Your task to perform on an android device: open sync settings in chrome Image 0: 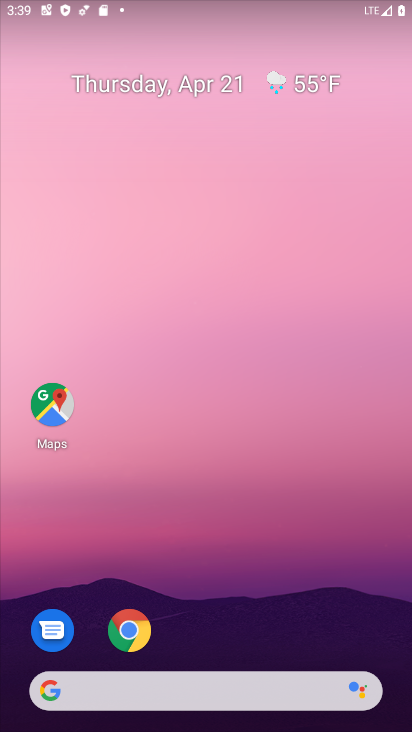
Step 0: click (118, 629)
Your task to perform on an android device: open sync settings in chrome Image 1: 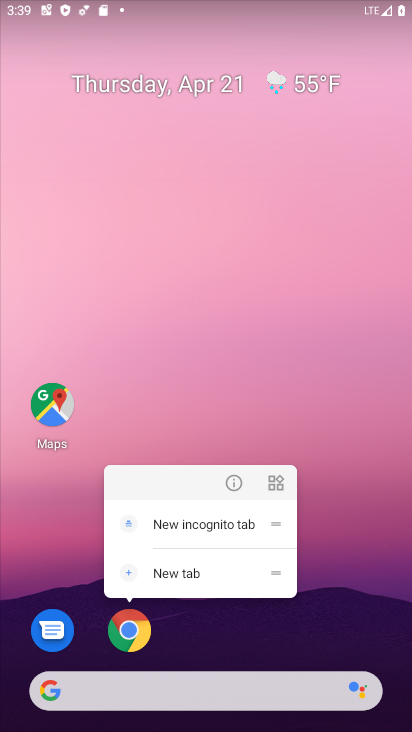
Step 1: click (109, 612)
Your task to perform on an android device: open sync settings in chrome Image 2: 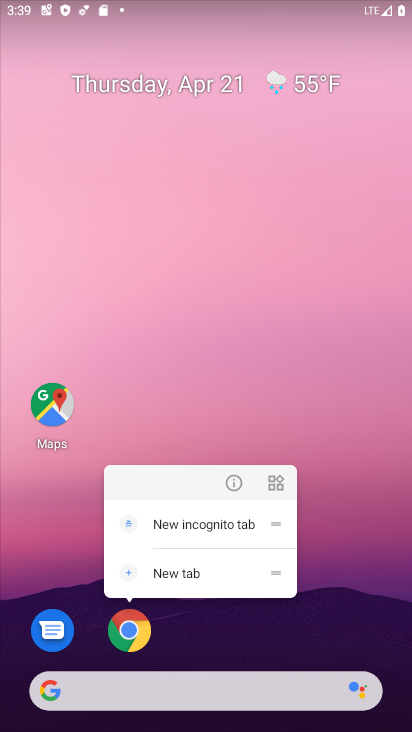
Step 2: click (126, 623)
Your task to perform on an android device: open sync settings in chrome Image 3: 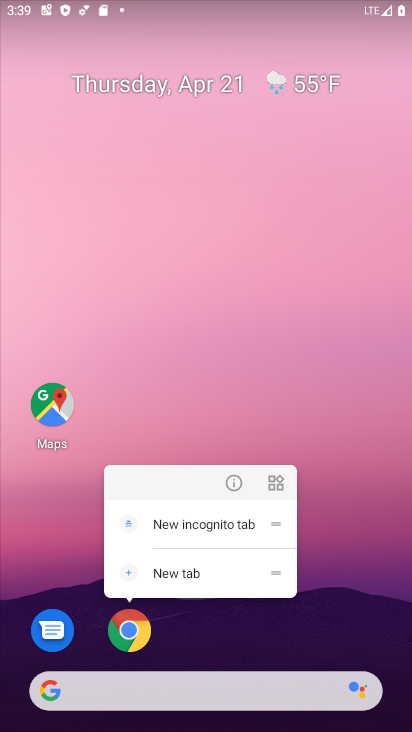
Step 3: click (130, 625)
Your task to perform on an android device: open sync settings in chrome Image 4: 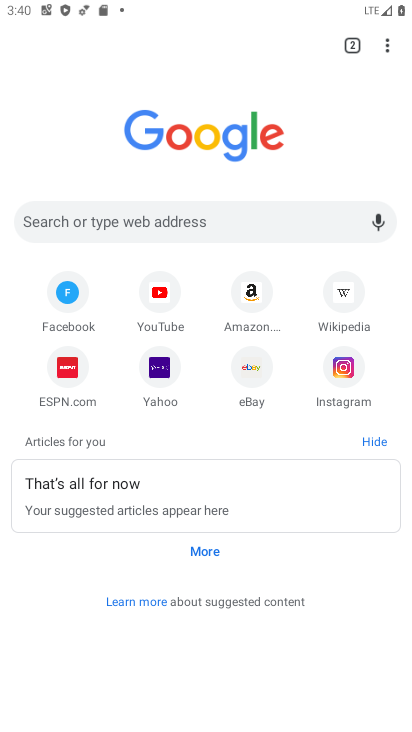
Step 4: drag from (385, 48) to (257, 436)
Your task to perform on an android device: open sync settings in chrome Image 5: 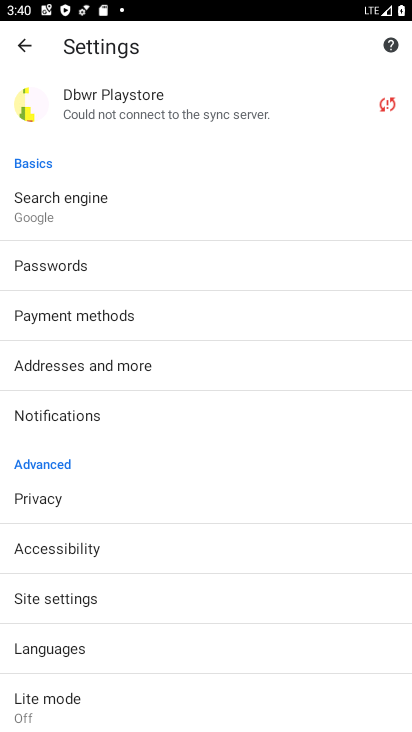
Step 5: click (176, 110)
Your task to perform on an android device: open sync settings in chrome Image 6: 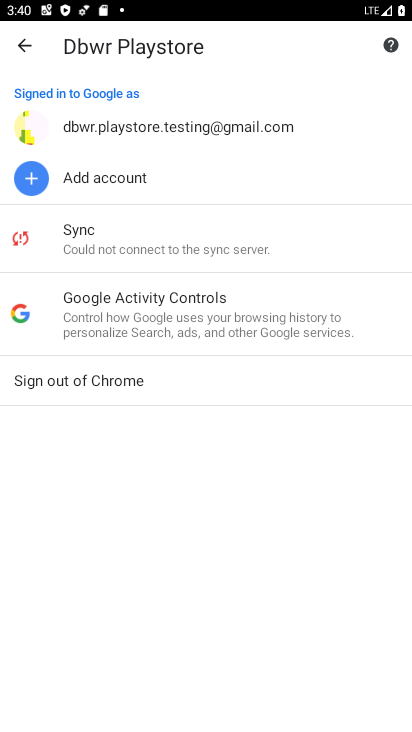
Step 6: task complete